Your task to perform on an android device: Open internet settings Image 0: 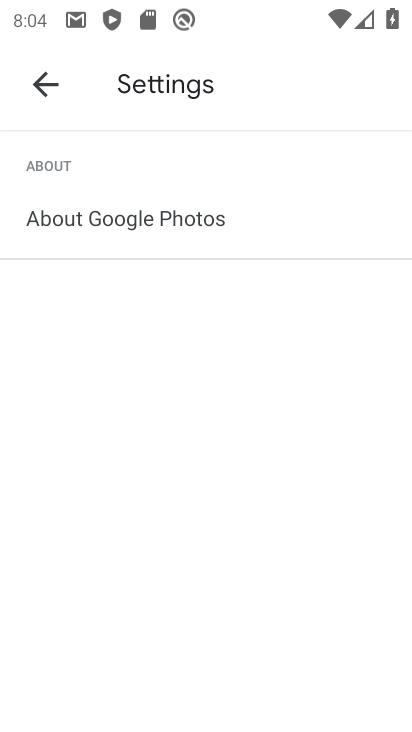
Step 0: press home button
Your task to perform on an android device: Open internet settings Image 1: 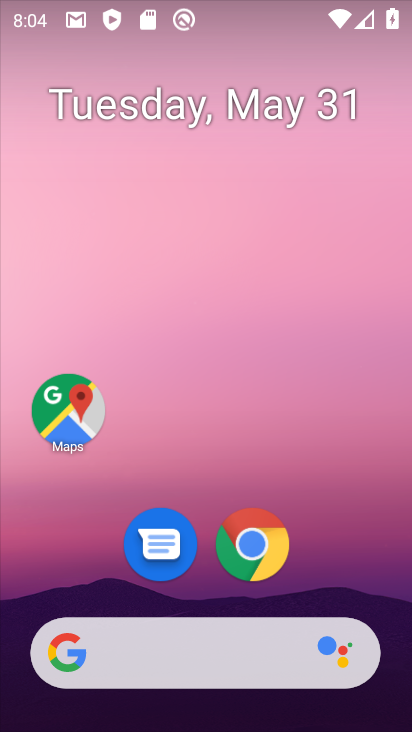
Step 1: drag from (251, 643) to (7, 361)
Your task to perform on an android device: Open internet settings Image 2: 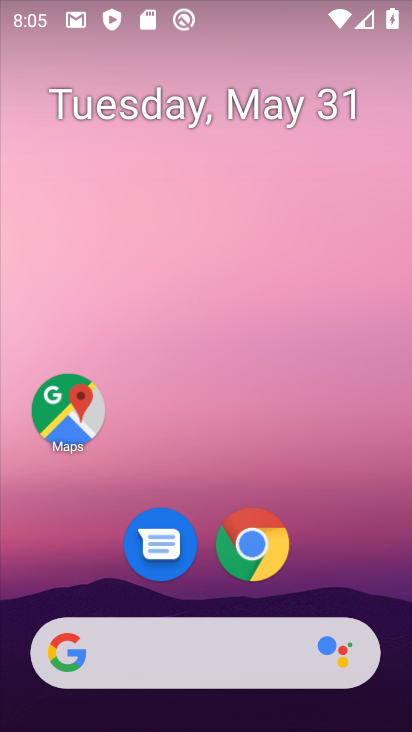
Step 2: click (153, 210)
Your task to perform on an android device: Open internet settings Image 3: 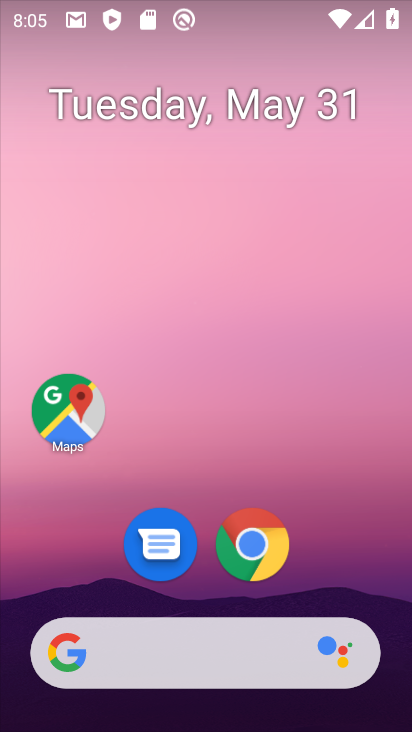
Step 3: drag from (256, 628) to (218, 1)
Your task to perform on an android device: Open internet settings Image 4: 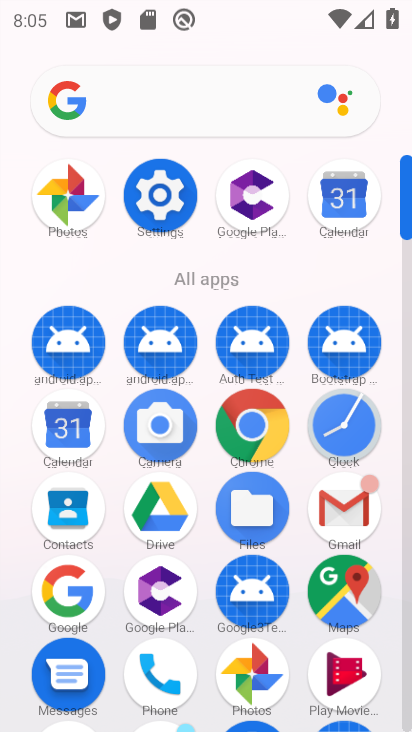
Step 4: click (172, 190)
Your task to perform on an android device: Open internet settings Image 5: 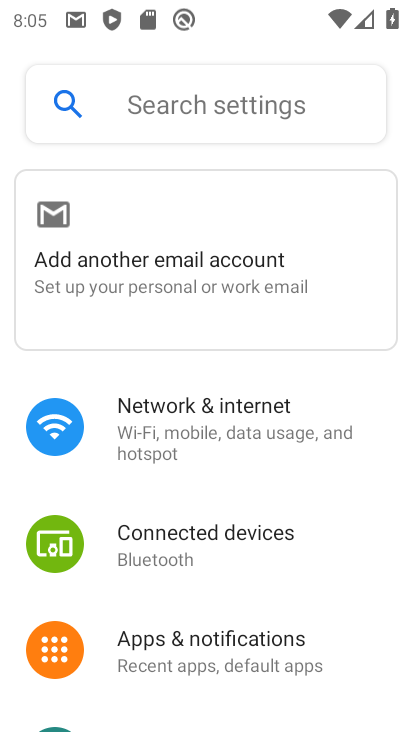
Step 5: click (217, 411)
Your task to perform on an android device: Open internet settings Image 6: 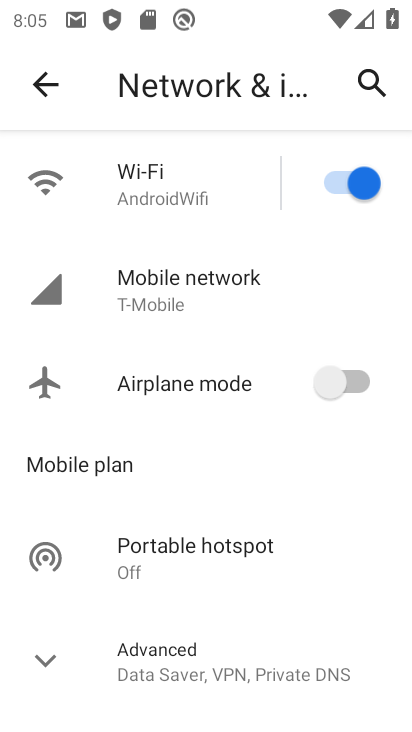
Step 6: task complete